Your task to perform on an android device: check android version Image 0: 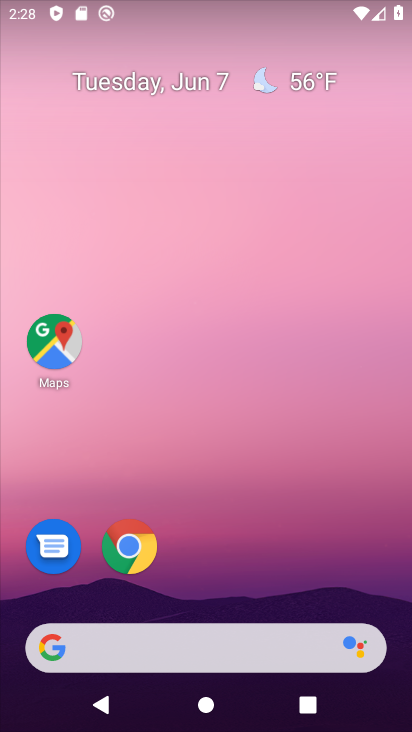
Step 0: drag from (282, 436) to (310, 62)
Your task to perform on an android device: check android version Image 1: 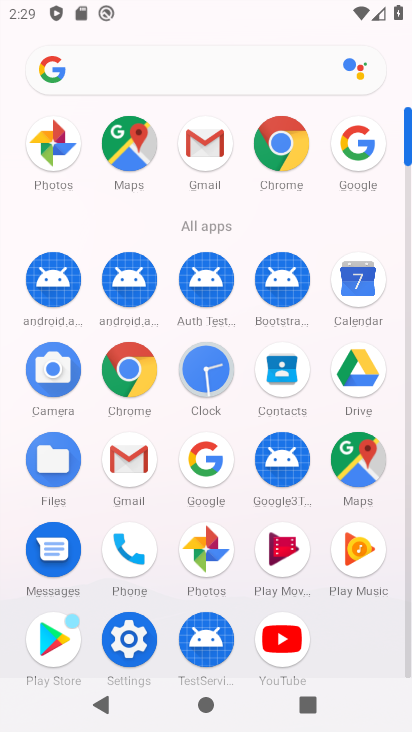
Step 1: click (125, 634)
Your task to perform on an android device: check android version Image 2: 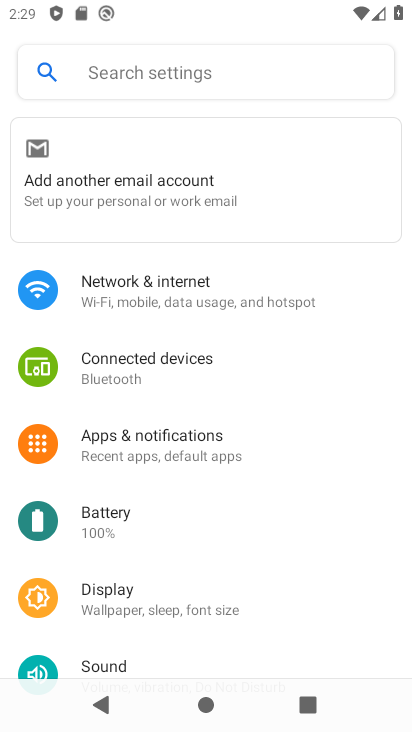
Step 2: drag from (263, 653) to (254, 135)
Your task to perform on an android device: check android version Image 3: 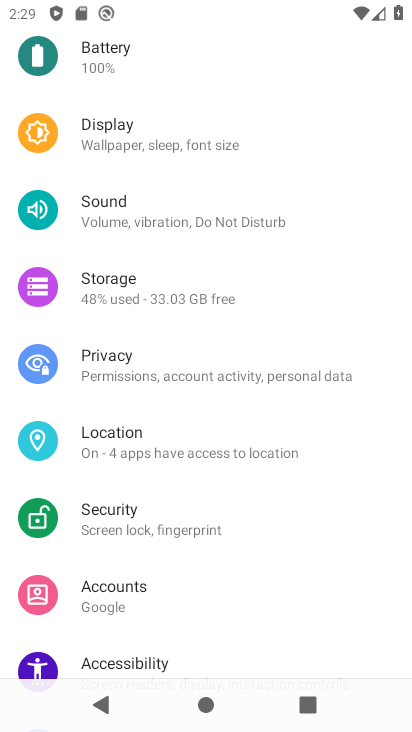
Step 3: drag from (201, 614) to (203, 41)
Your task to perform on an android device: check android version Image 4: 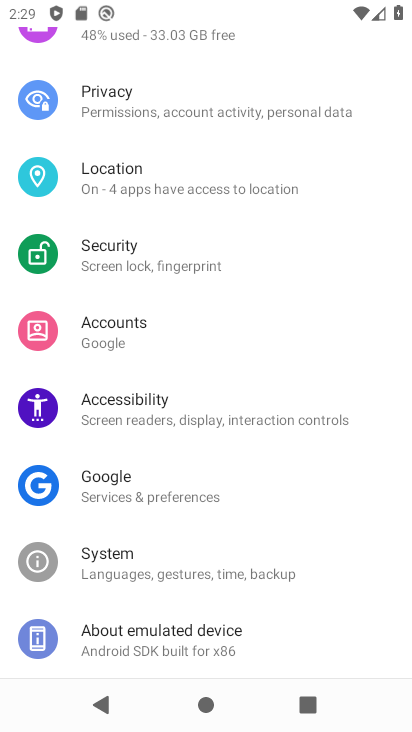
Step 4: click (146, 624)
Your task to perform on an android device: check android version Image 5: 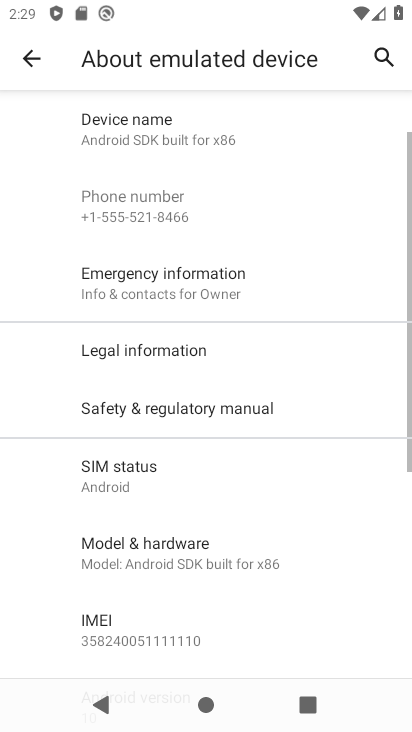
Step 5: drag from (209, 608) to (224, 336)
Your task to perform on an android device: check android version Image 6: 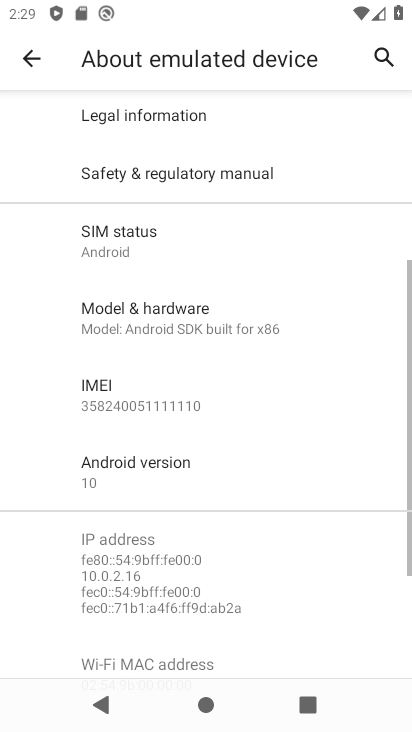
Step 6: click (169, 484)
Your task to perform on an android device: check android version Image 7: 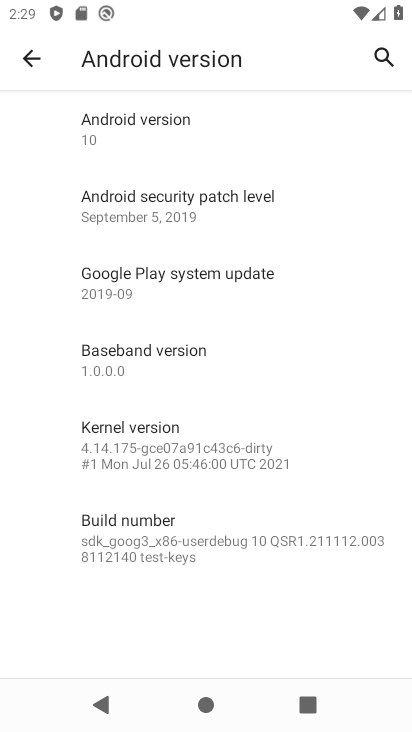
Step 7: task complete